Your task to perform on an android device: toggle translation in the chrome app Image 0: 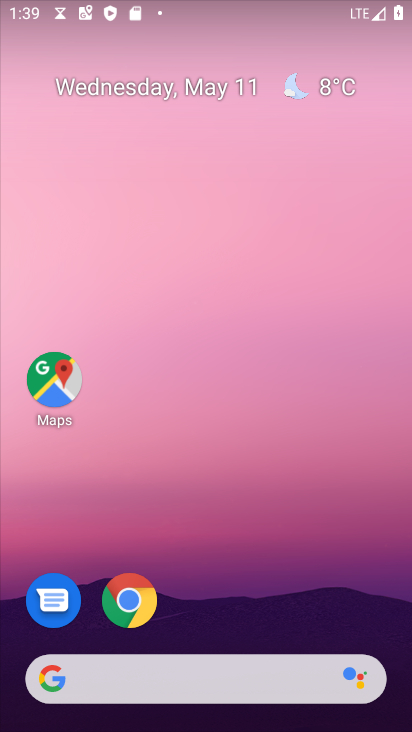
Step 0: click (141, 602)
Your task to perform on an android device: toggle translation in the chrome app Image 1: 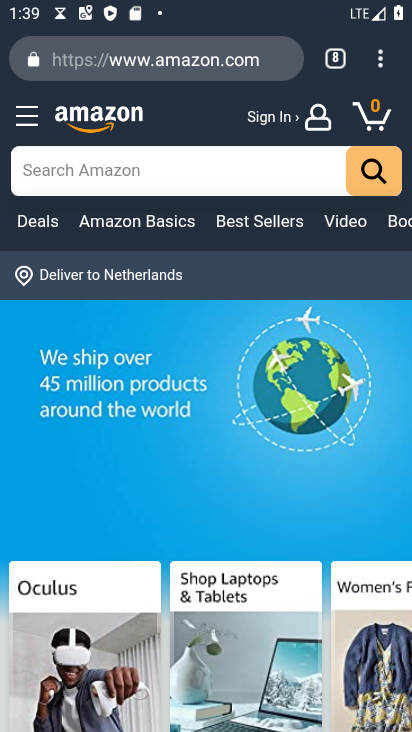
Step 1: click (381, 57)
Your task to perform on an android device: toggle translation in the chrome app Image 2: 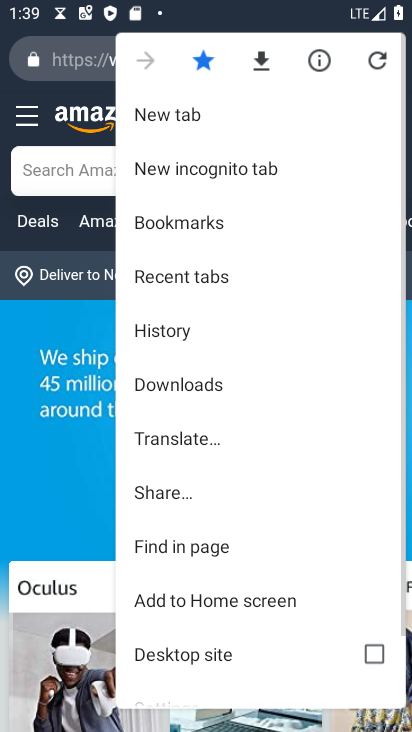
Step 2: drag from (238, 546) to (252, 209)
Your task to perform on an android device: toggle translation in the chrome app Image 3: 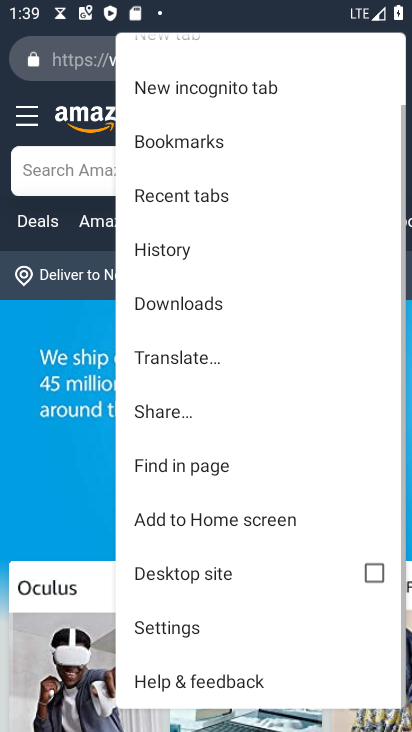
Step 3: click (187, 634)
Your task to perform on an android device: toggle translation in the chrome app Image 4: 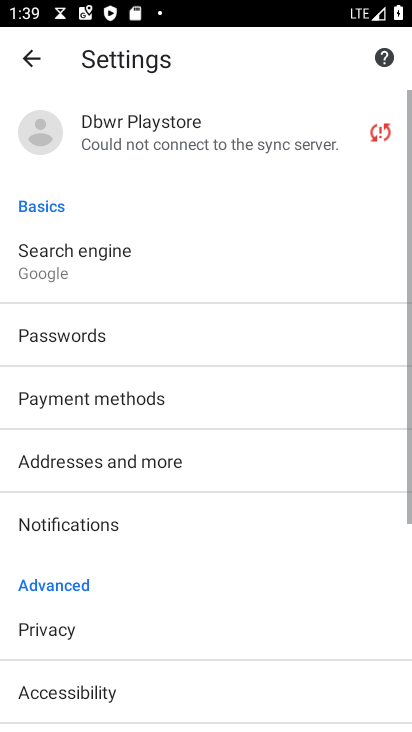
Step 4: drag from (202, 621) to (200, 231)
Your task to perform on an android device: toggle translation in the chrome app Image 5: 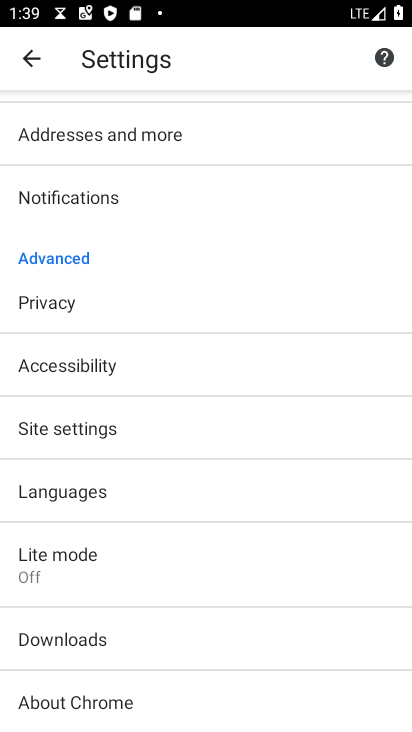
Step 5: click (94, 491)
Your task to perform on an android device: toggle translation in the chrome app Image 6: 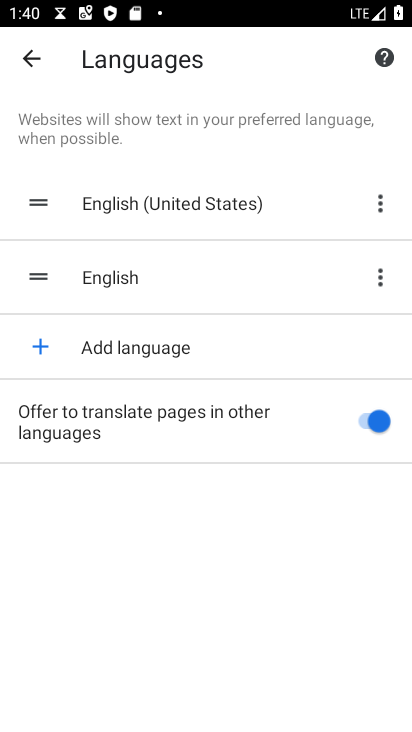
Step 6: click (377, 425)
Your task to perform on an android device: toggle translation in the chrome app Image 7: 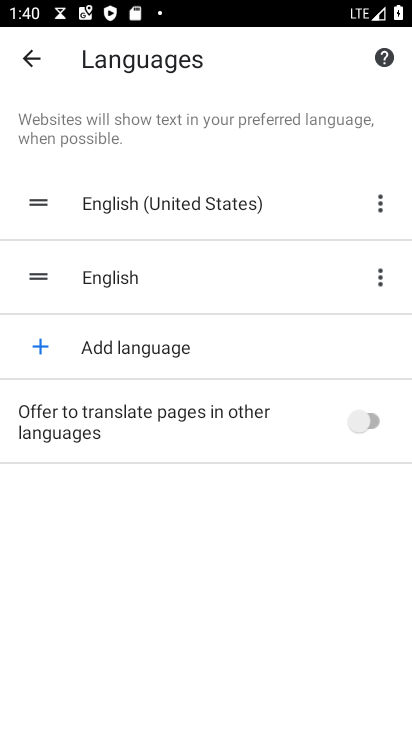
Step 7: task complete